Your task to perform on an android device: find photos in the google photos app Image 0: 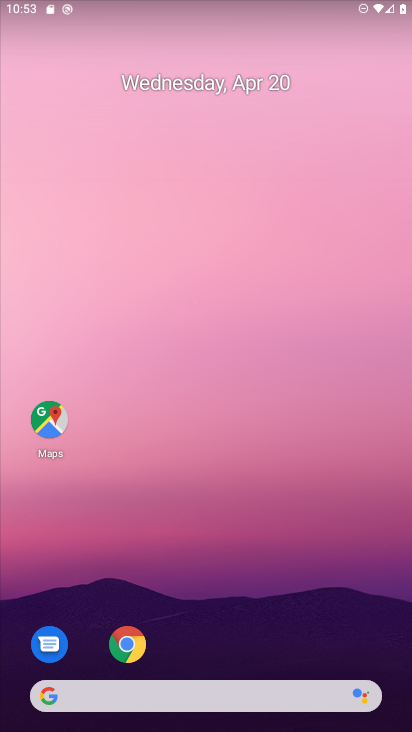
Step 0: drag from (318, 618) to (234, 71)
Your task to perform on an android device: find photos in the google photos app Image 1: 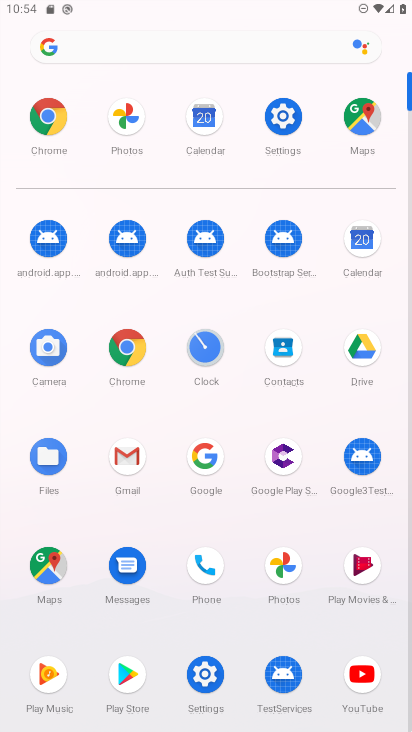
Step 1: click (289, 572)
Your task to perform on an android device: find photos in the google photos app Image 2: 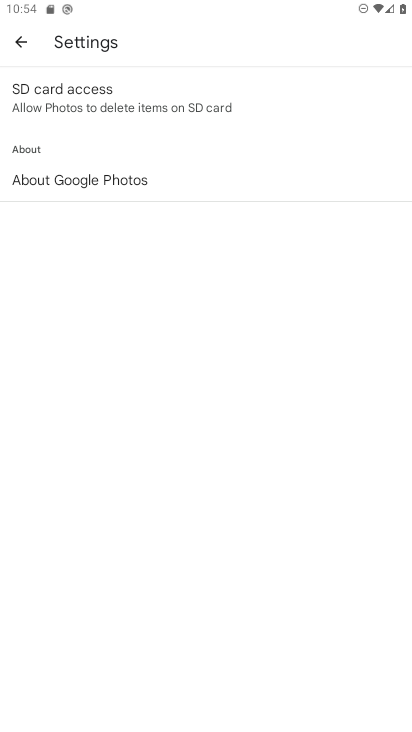
Step 2: click (22, 34)
Your task to perform on an android device: find photos in the google photos app Image 3: 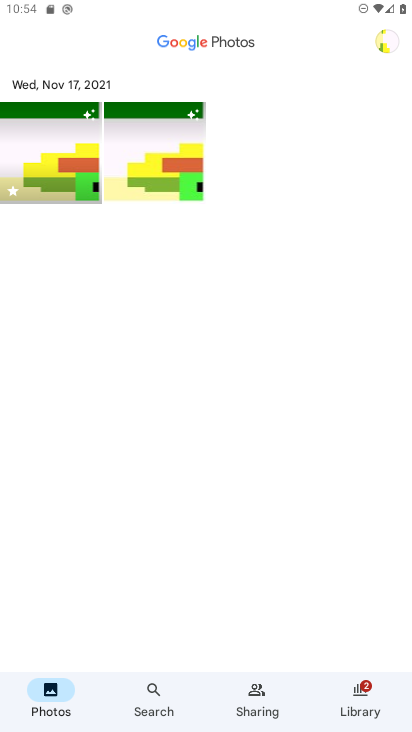
Step 3: task complete